Your task to perform on an android device: See recent photos Image 0: 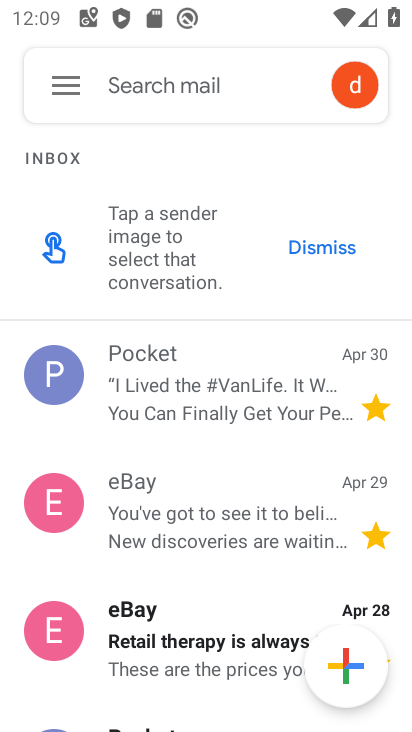
Step 0: press home button
Your task to perform on an android device: See recent photos Image 1: 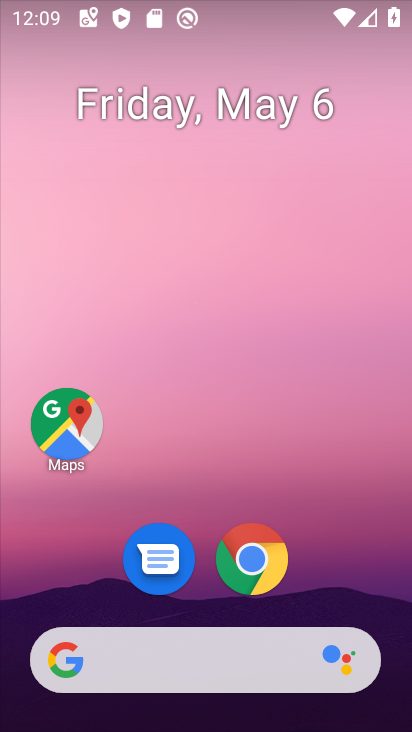
Step 1: drag from (312, 560) to (267, 128)
Your task to perform on an android device: See recent photos Image 2: 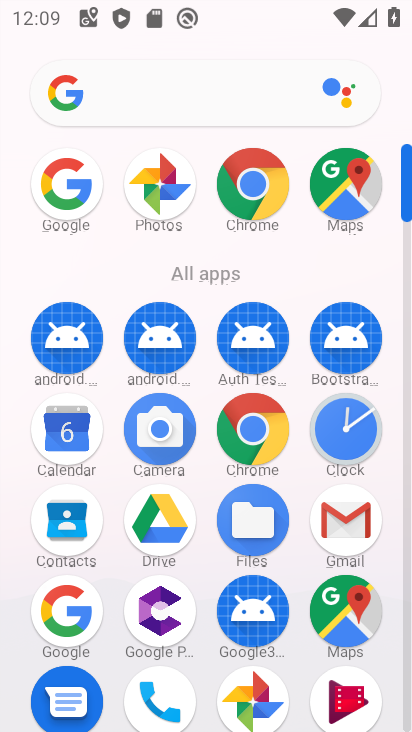
Step 2: click (239, 687)
Your task to perform on an android device: See recent photos Image 3: 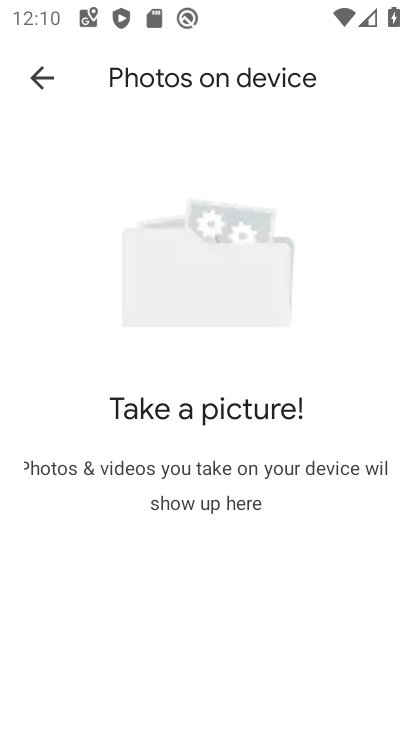
Step 3: click (29, 70)
Your task to perform on an android device: See recent photos Image 4: 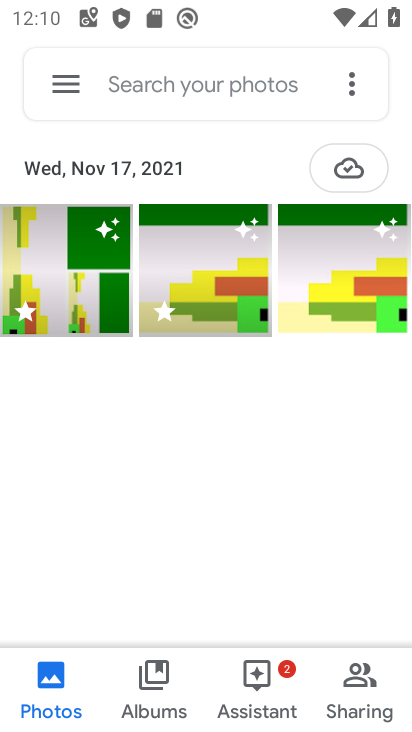
Step 4: task complete